Your task to perform on an android device: Open calendar and show me the second week of next month Image 0: 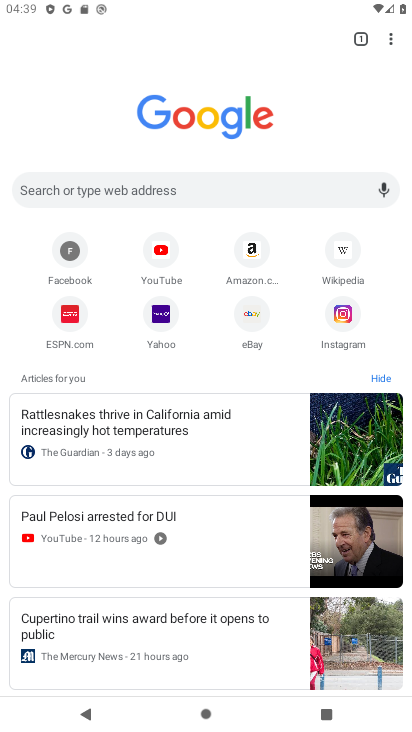
Step 0: press home button
Your task to perform on an android device: Open calendar and show me the second week of next month Image 1: 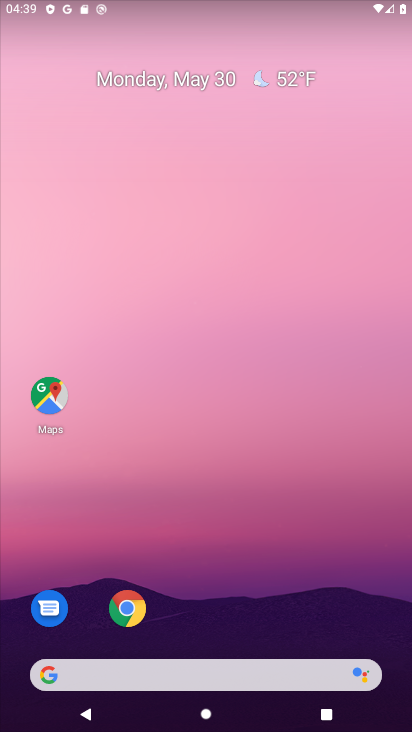
Step 1: drag from (172, 531) to (166, 234)
Your task to perform on an android device: Open calendar and show me the second week of next month Image 2: 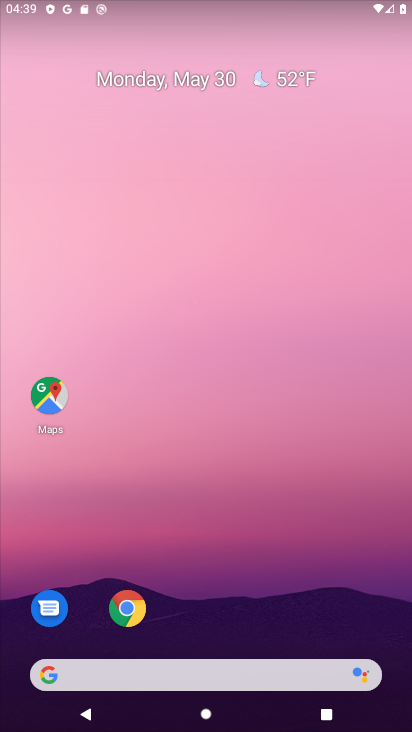
Step 2: drag from (314, 558) to (255, 118)
Your task to perform on an android device: Open calendar and show me the second week of next month Image 3: 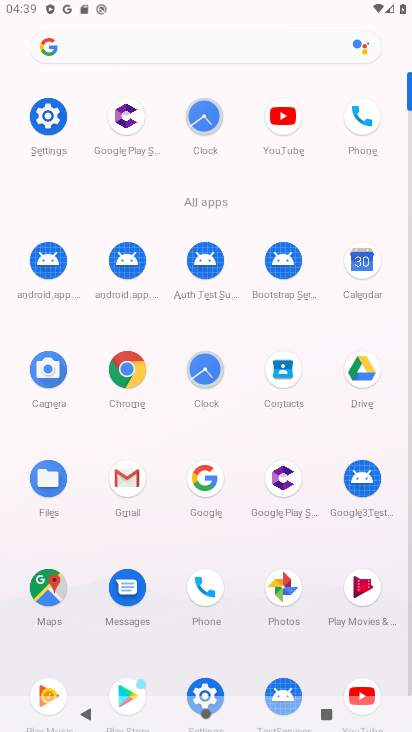
Step 3: click (363, 255)
Your task to perform on an android device: Open calendar and show me the second week of next month Image 4: 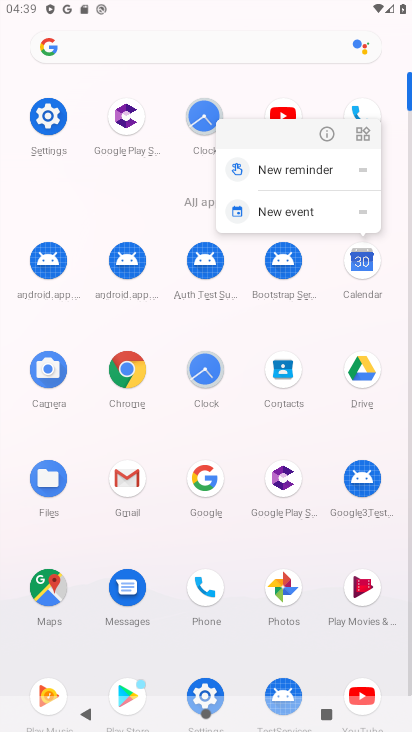
Step 4: click (364, 270)
Your task to perform on an android device: Open calendar and show me the second week of next month Image 5: 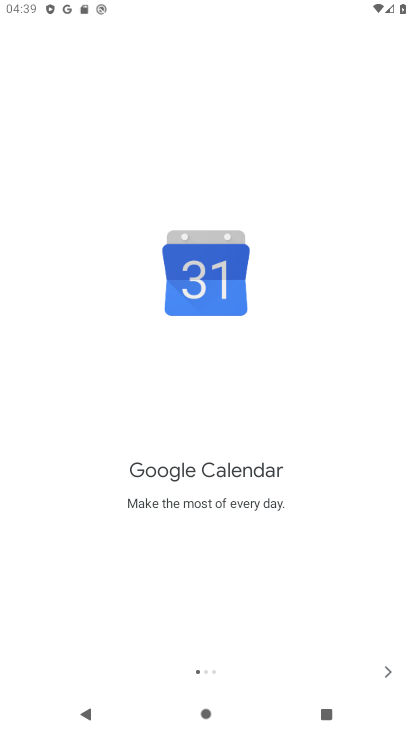
Step 5: click (386, 671)
Your task to perform on an android device: Open calendar and show me the second week of next month Image 6: 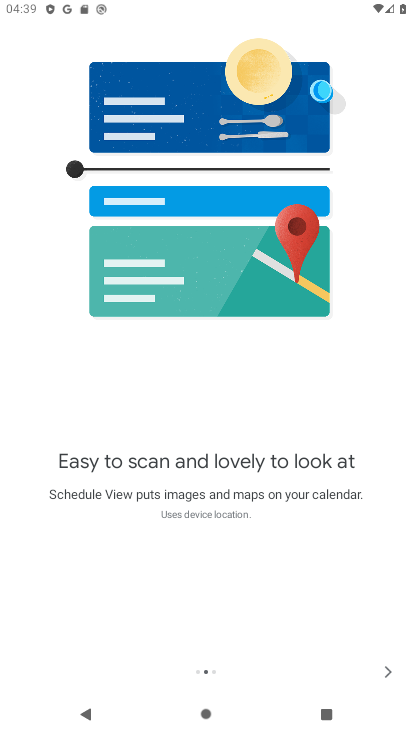
Step 6: click (386, 671)
Your task to perform on an android device: Open calendar and show me the second week of next month Image 7: 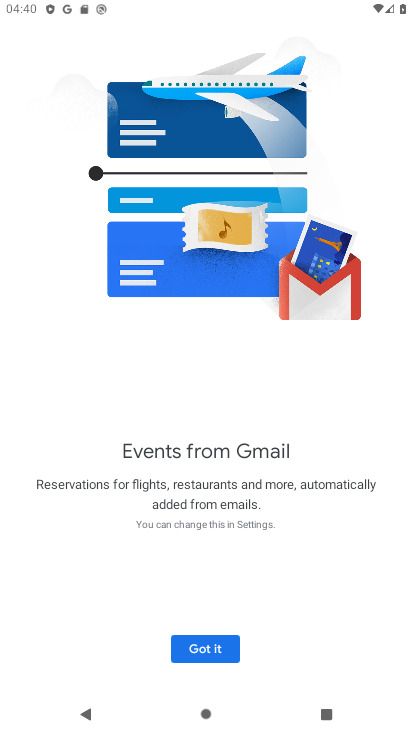
Step 7: click (216, 648)
Your task to perform on an android device: Open calendar and show me the second week of next month Image 8: 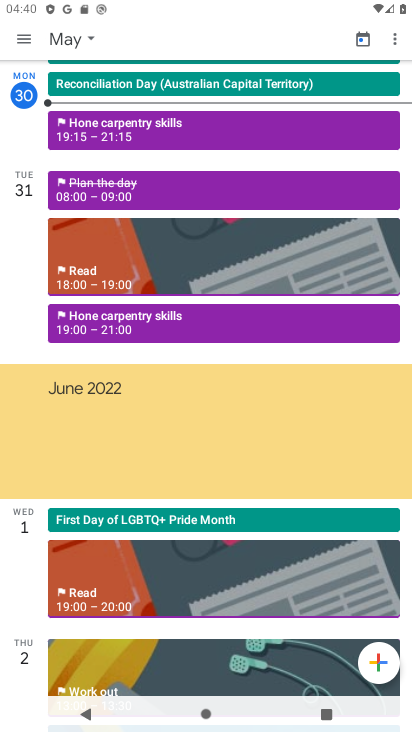
Step 8: click (68, 28)
Your task to perform on an android device: Open calendar and show me the second week of next month Image 9: 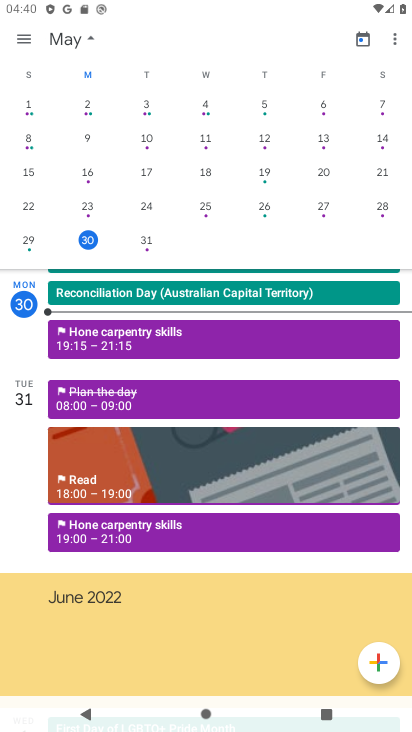
Step 9: drag from (337, 213) to (30, 265)
Your task to perform on an android device: Open calendar and show me the second week of next month Image 10: 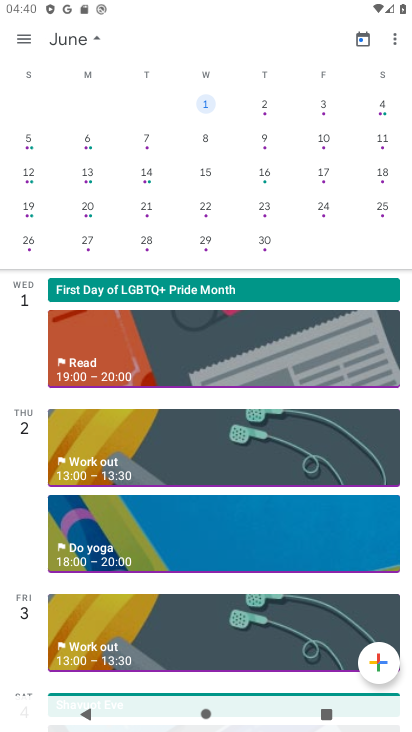
Step 10: click (25, 142)
Your task to perform on an android device: Open calendar and show me the second week of next month Image 11: 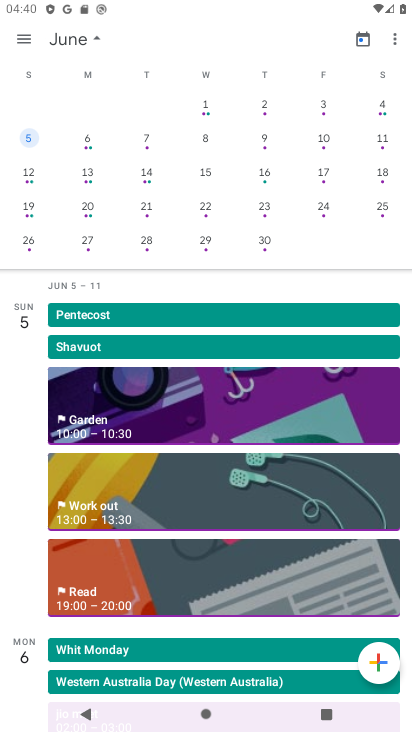
Step 11: task complete